Your task to perform on an android device: toggle show notifications on the lock screen Image 0: 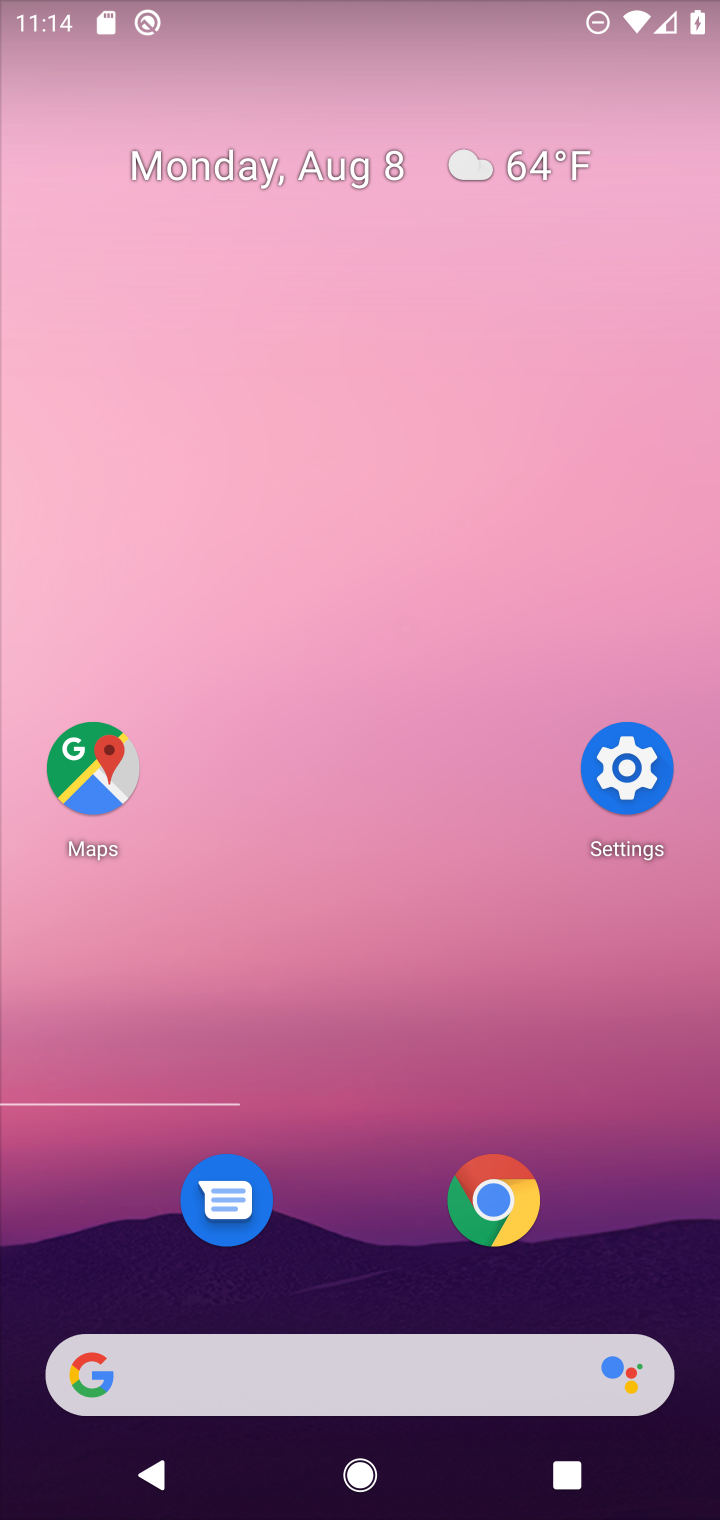
Step 0: click (634, 772)
Your task to perform on an android device: toggle show notifications on the lock screen Image 1: 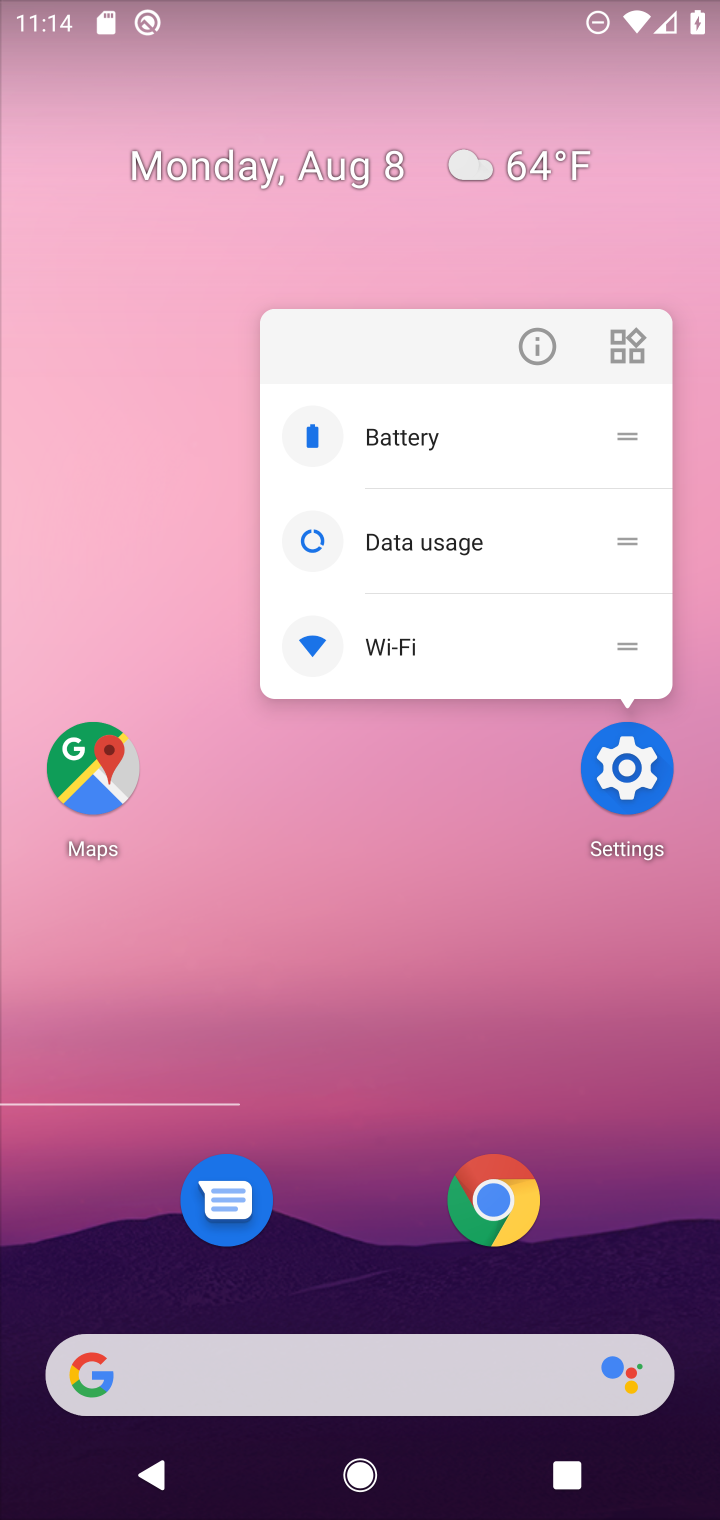
Step 1: click (634, 777)
Your task to perform on an android device: toggle show notifications on the lock screen Image 2: 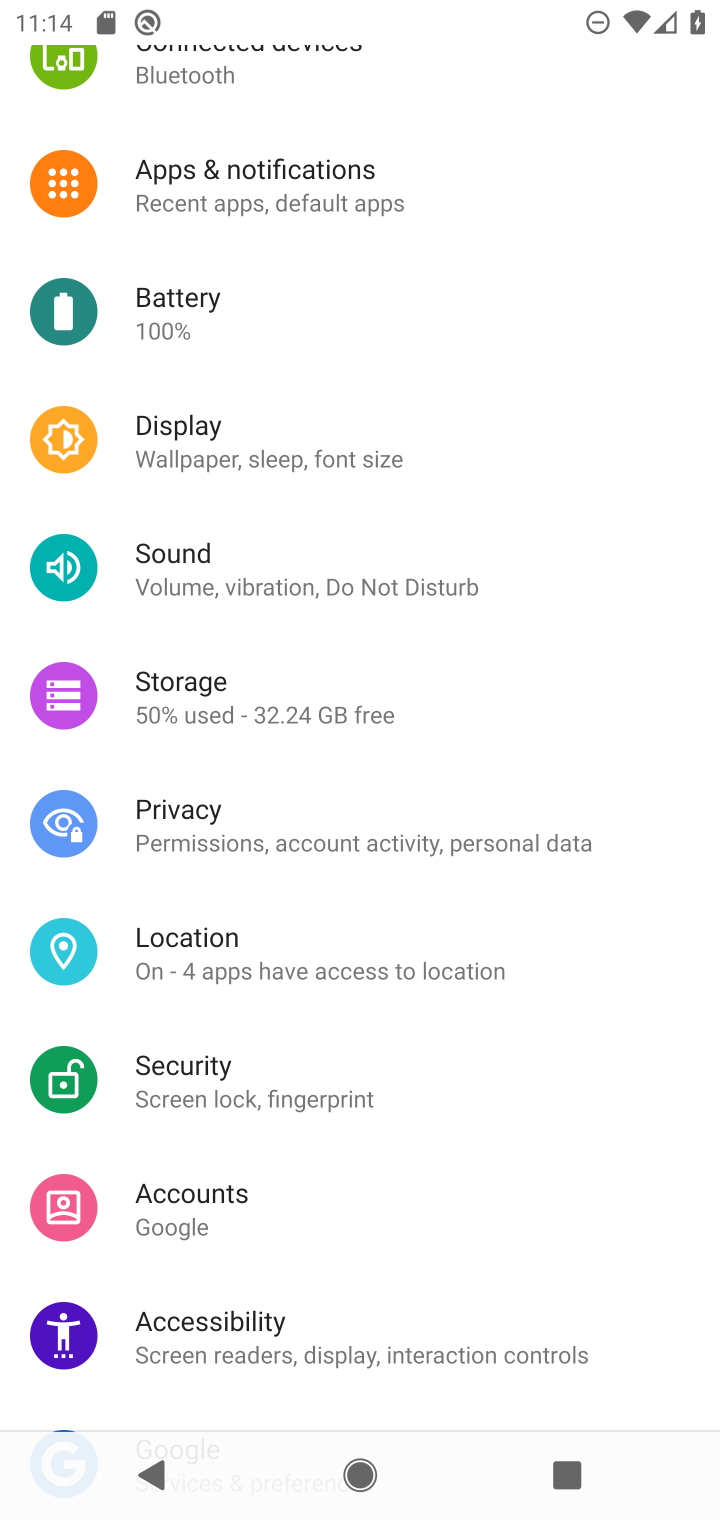
Step 2: drag from (523, 280) to (437, 1202)
Your task to perform on an android device: toggle show notifications on the lock screen Image 3: 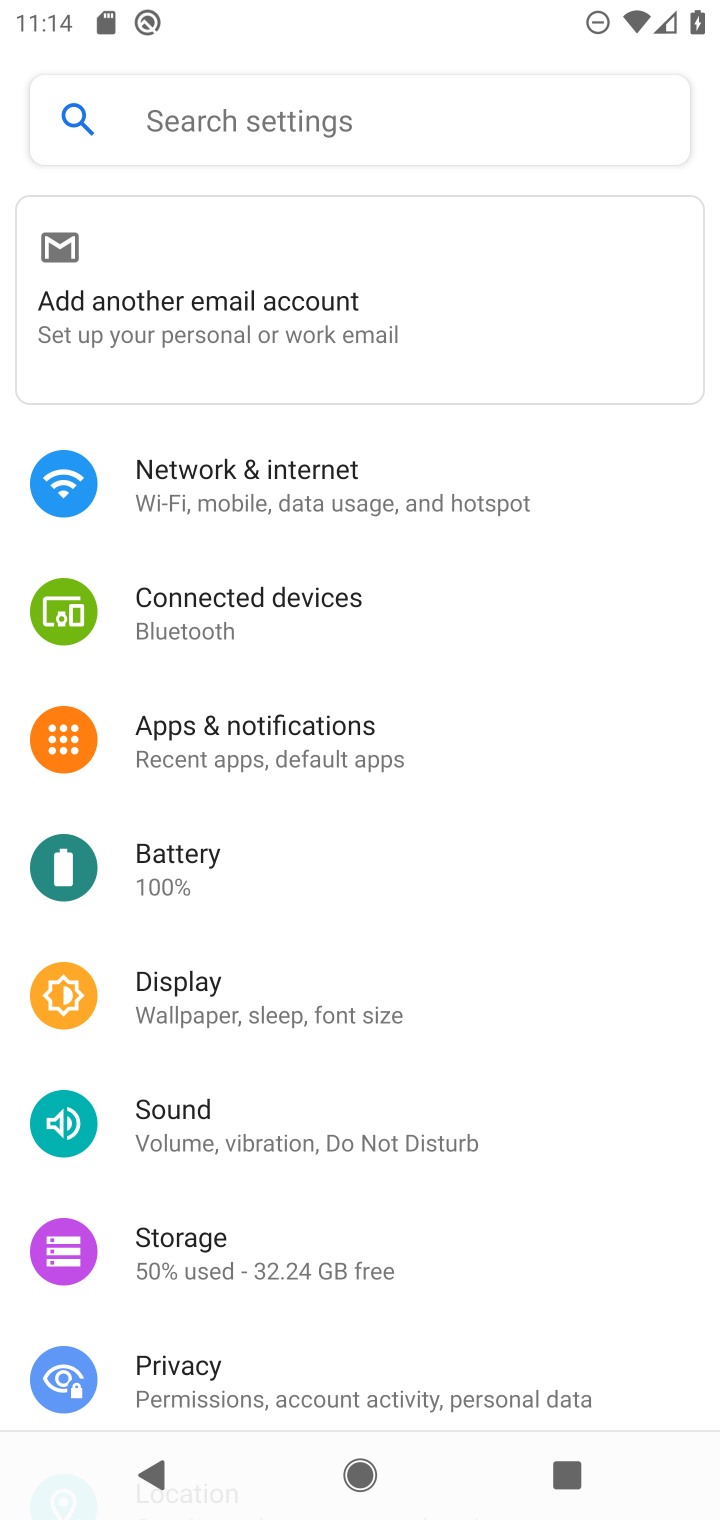
Step 3: click (289, 735)
Your task to perform on an android device: toggle show notifications on the lock screen Image 4: 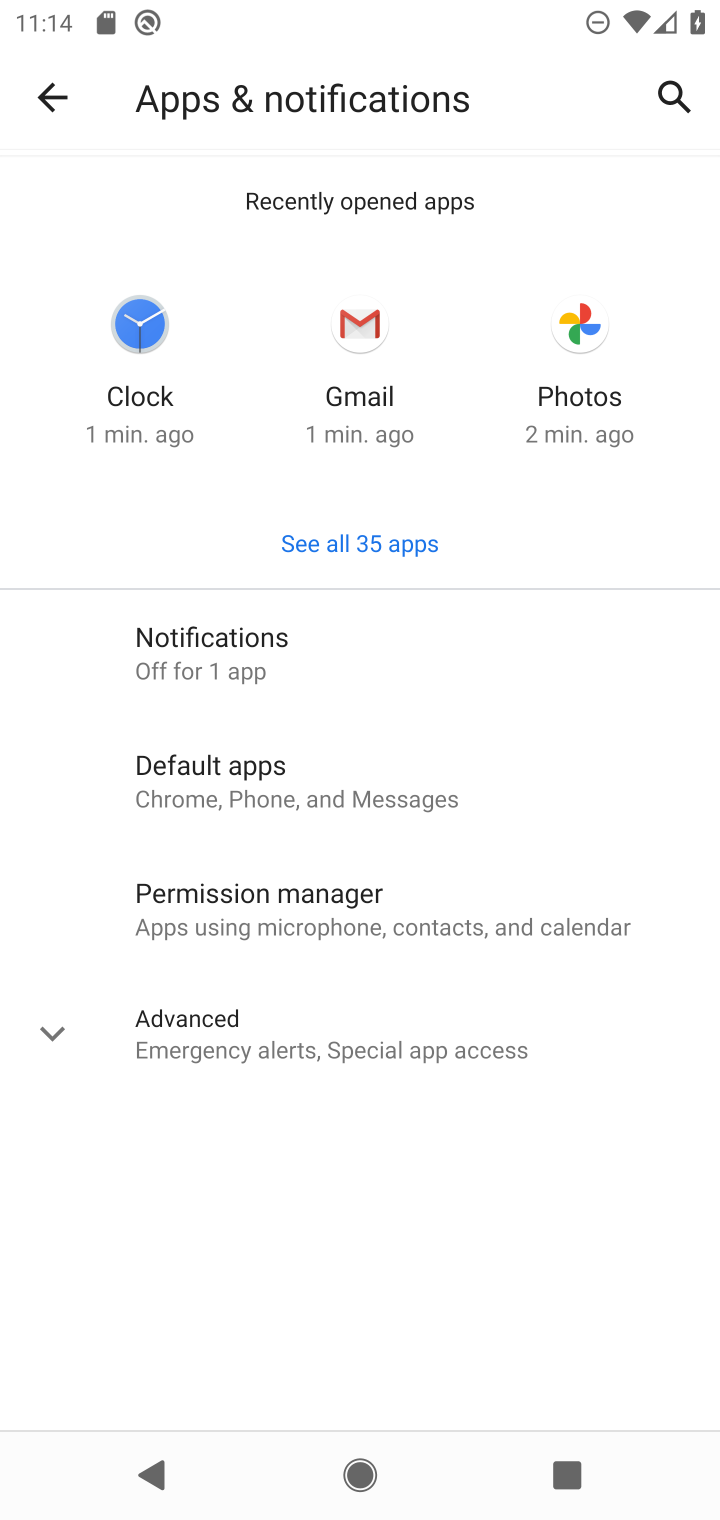
Step 4: click (202, 642)
Your task to perform on an android device: toggle show notifications on the lock screen Image 5: 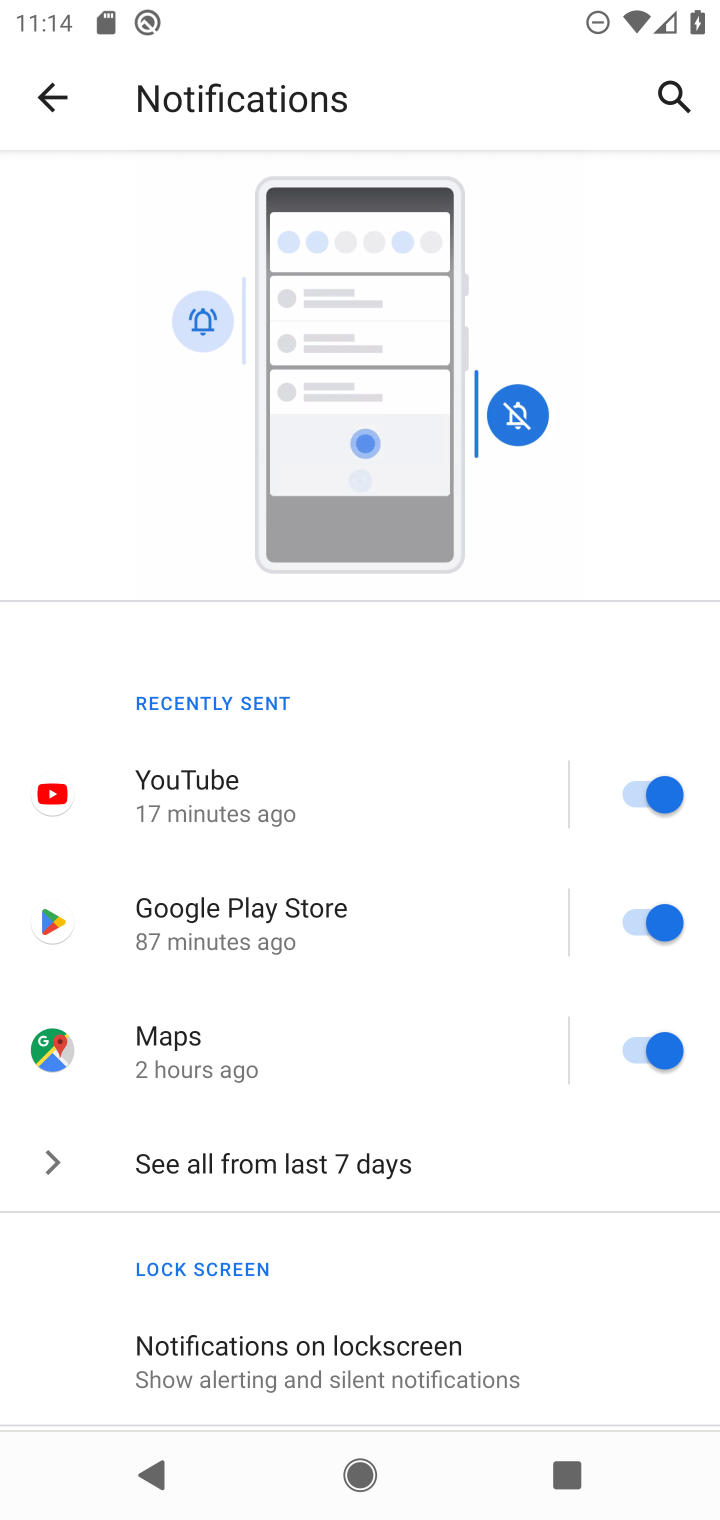
Step 5: drag from (383, 1293) to (537, 575)
Your task to perform on an android device: toggle show notifications on the lock screen Image 6: 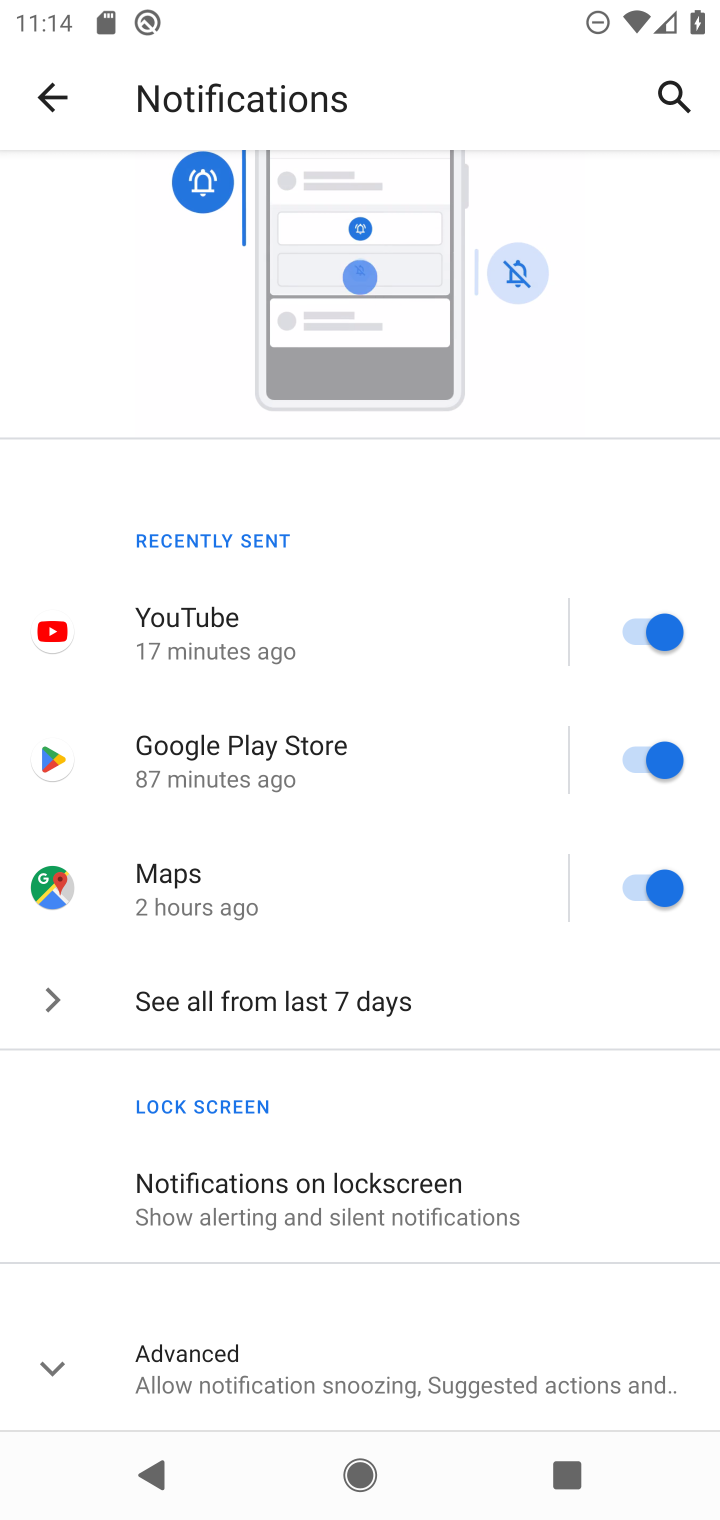
Step 6: click (369, 1190)
Your task to perform on an android device: toggle show notifications on the lock screen Image 7: 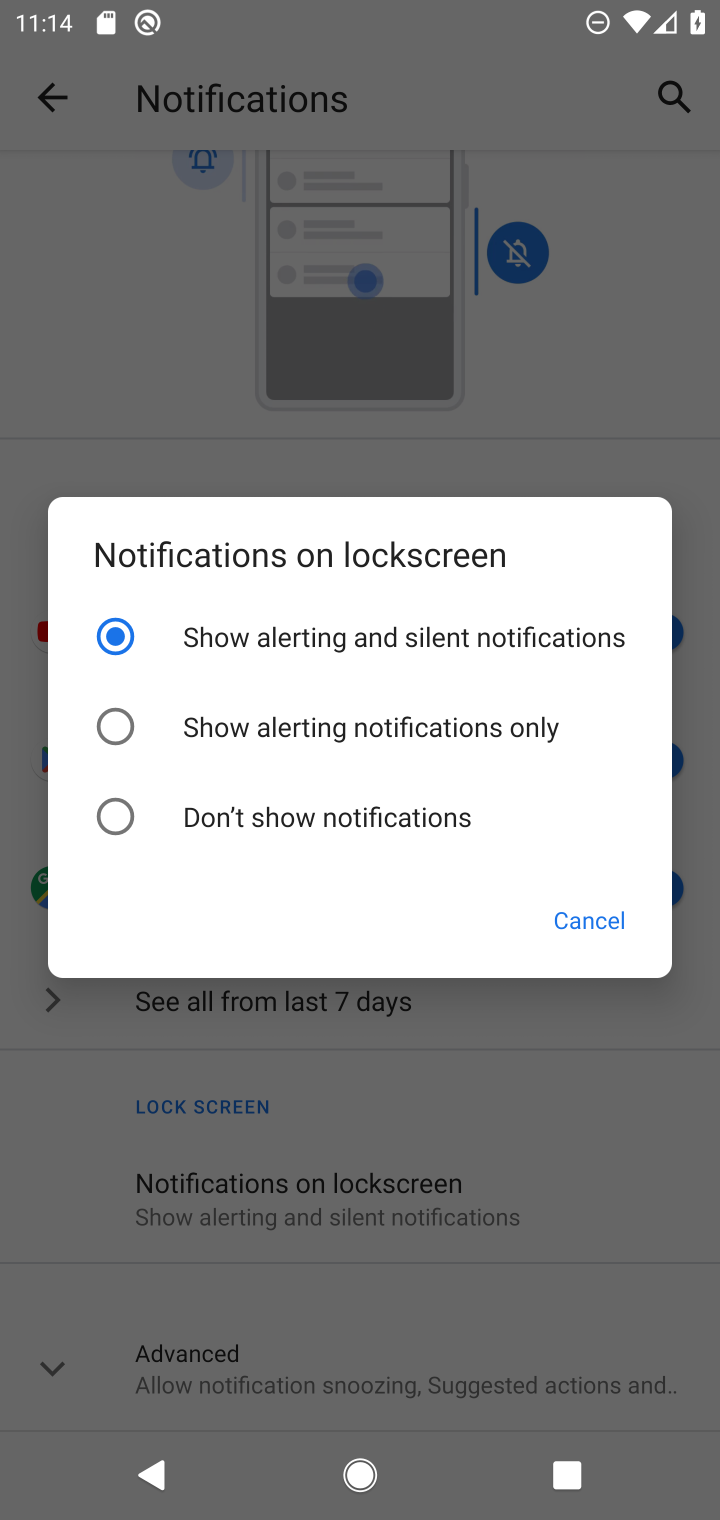
Step 7: click (103, 802)
Your task to perform on an android device: toggle show notifications on the lock screen Image 8: 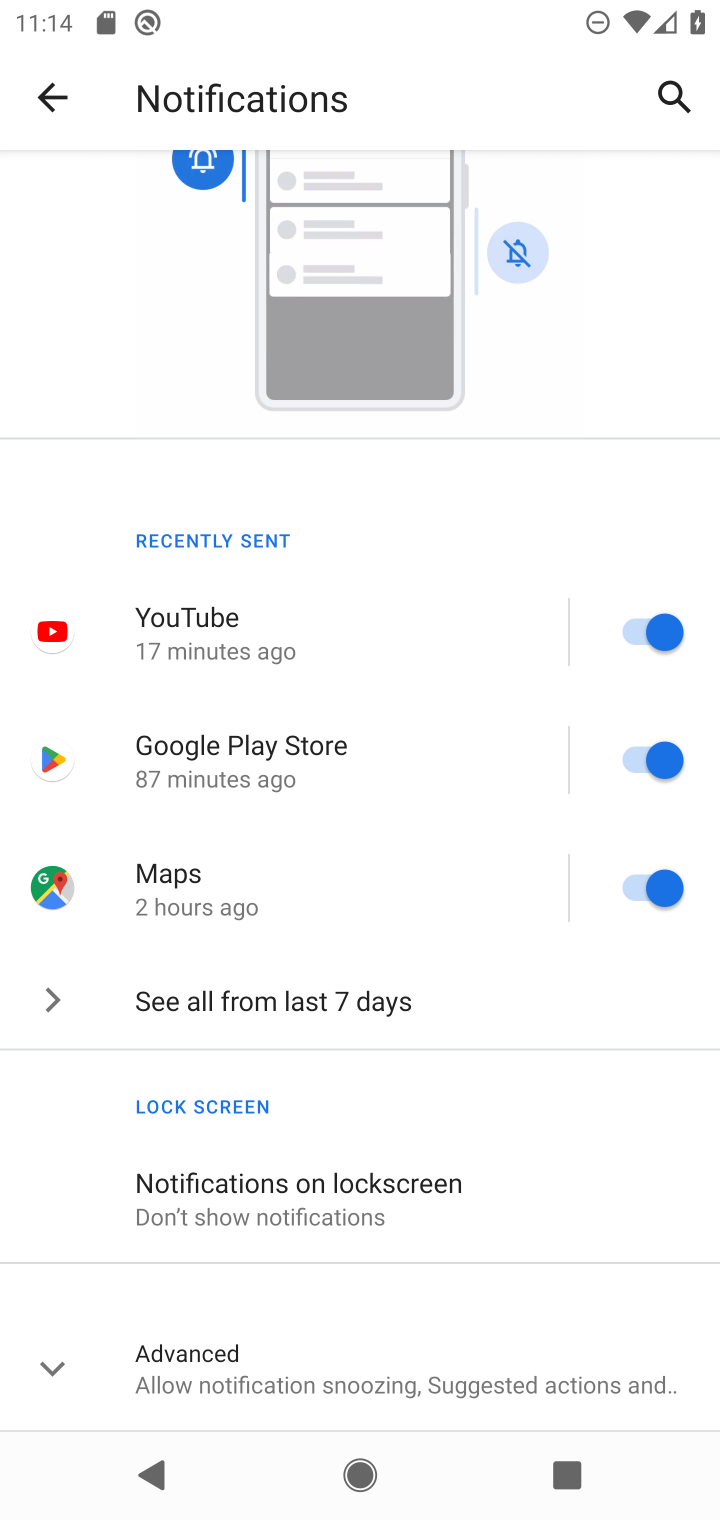
Step 8: task complete